Your task to perform on an android device: Open privacy settings Image 0: 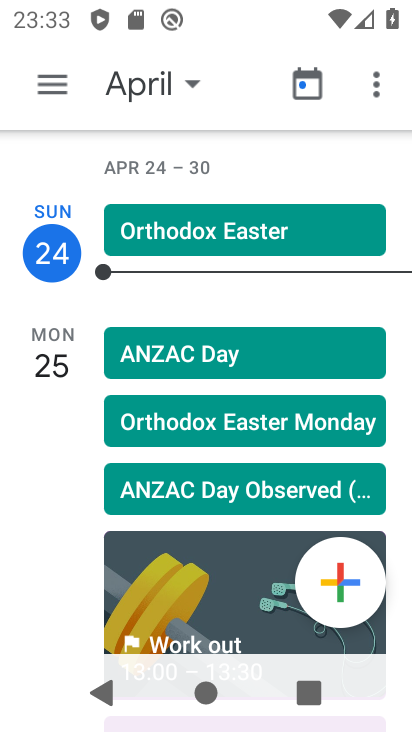
Step 0: press home button
Your task to perform on an android device: Open privacy settings Image 1: 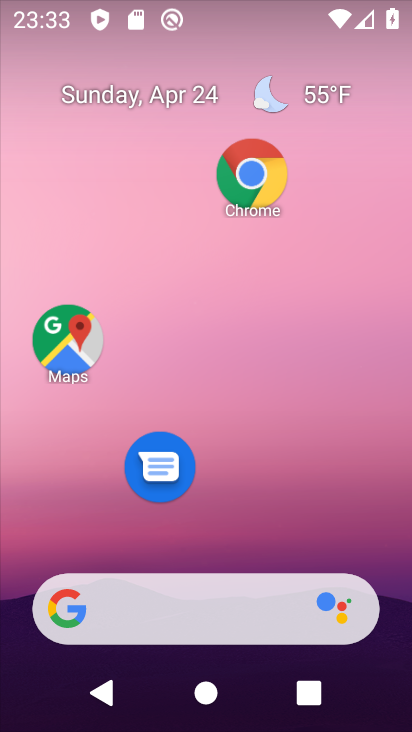
Step 1: click (248, 173)
Your task to perform on an android device: Open privacy settings Image 2: 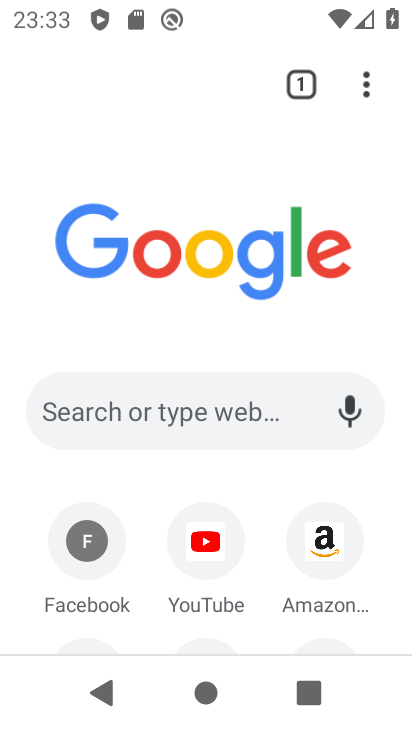
Step 2: click (365, 85)
Your task to perform on an android device: Open privacy settings Image 3: 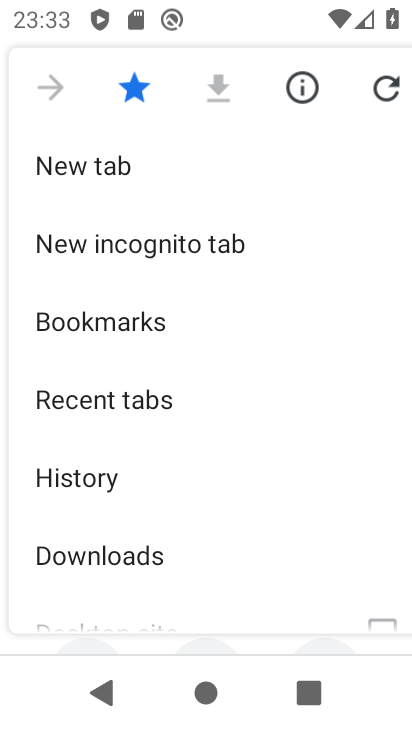
Step 3: drag from (199, 540) to (214, 98)
Your task to perform on an android device: Open privacy settings Image 4: 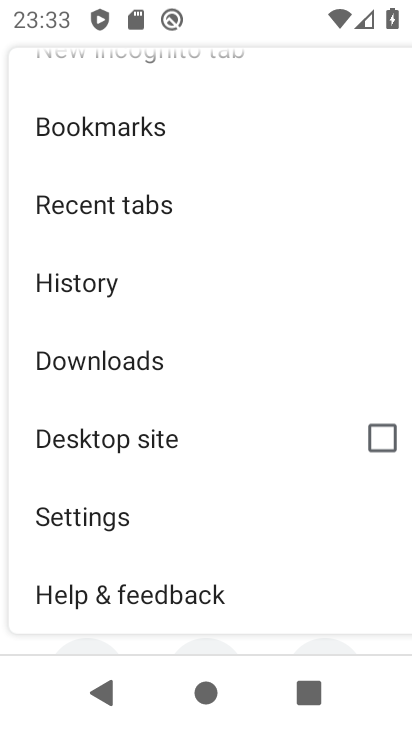
Step 4: click (76, 513)
Your task to perform on an android device: Open privacy settings Image 5: 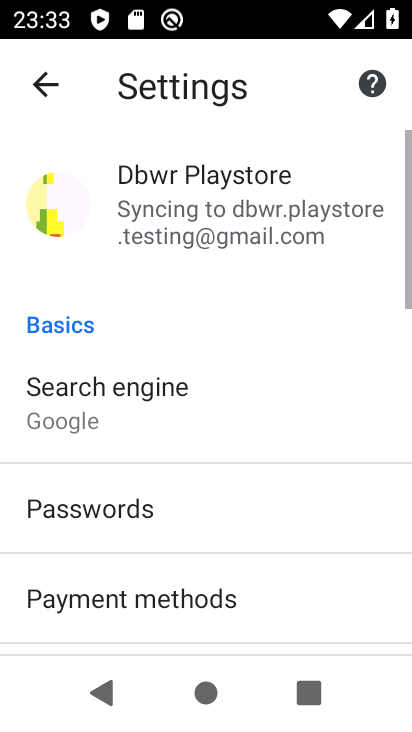
Step 5: drag from (272, 530) to (261, 229)
Your task to perform on an android device: Open privacy settings Image 6: 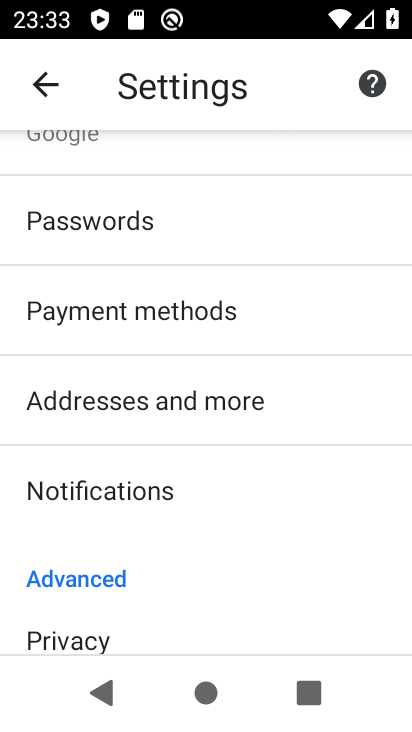
Step 6: drag from (199, 571) to (205, 389)
Your task to perform on an android device: Open privacy settings Image 7: 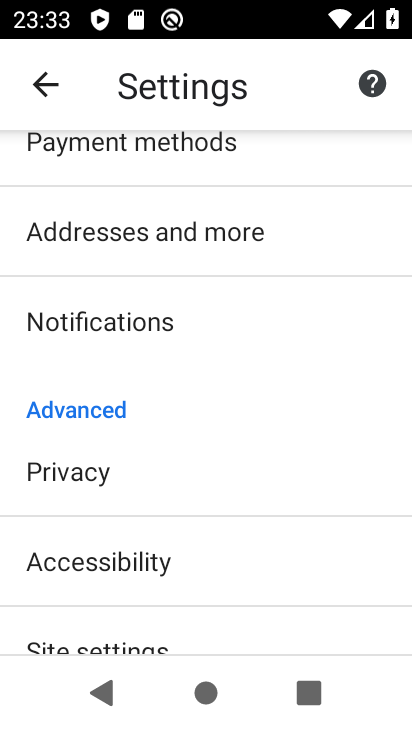
Step 7: click (82, 471)
Your task to perform on an android device: Open privacy settings Image 8: 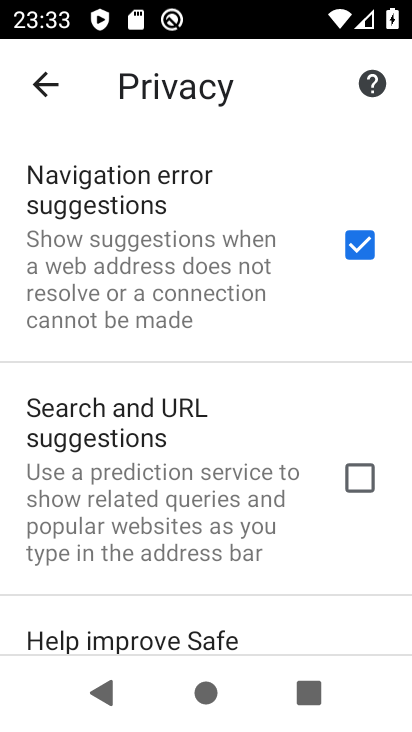
Step 8: task complete